Your task to perform on an android device: Turn off the flashlight Image 0: 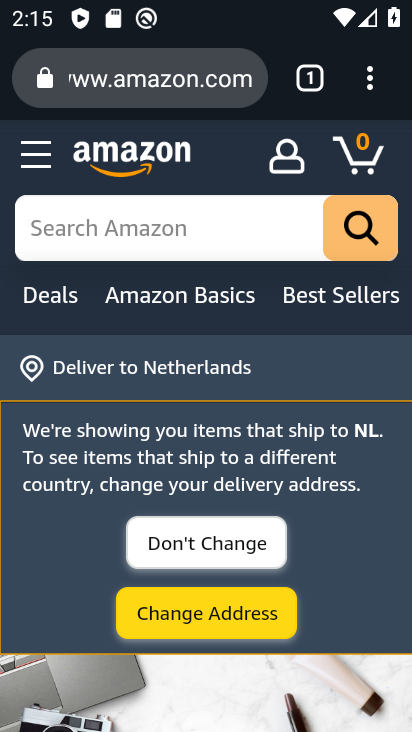
Step 0: press home button
Your task to perform on an android device: Turn off the flashlight Image 1: 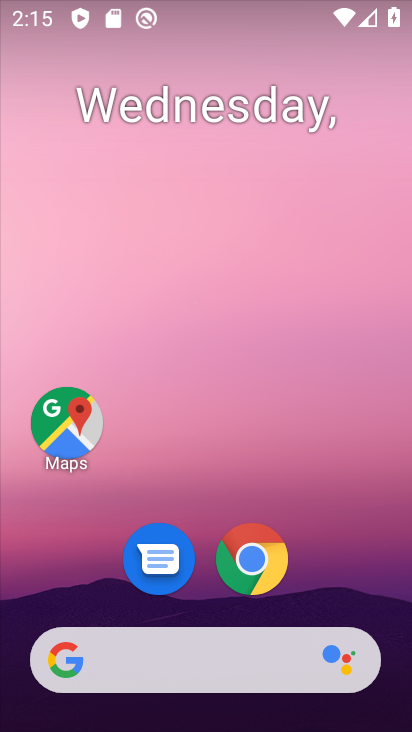
Step 1: drag from (257, 9) to (268, 339)
Your task to perform on an android device: Turn off the flashlight Image 2: 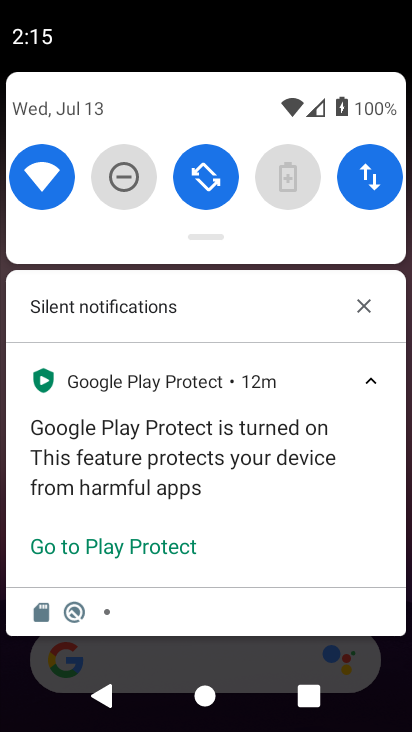
Step 2: drag from (239, 93) to (238, 394)
Your task to perform on an android device: Turn off the flashlight Image 3: 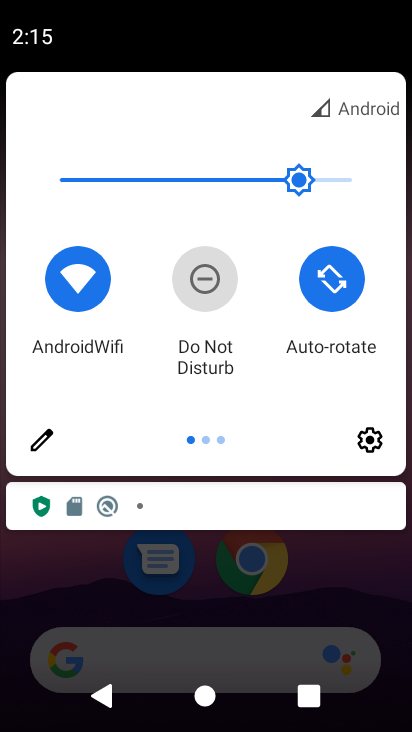
Step 3: click (39, 440)
Your task to perform on an android device: Turn off the flashlight Image 4: 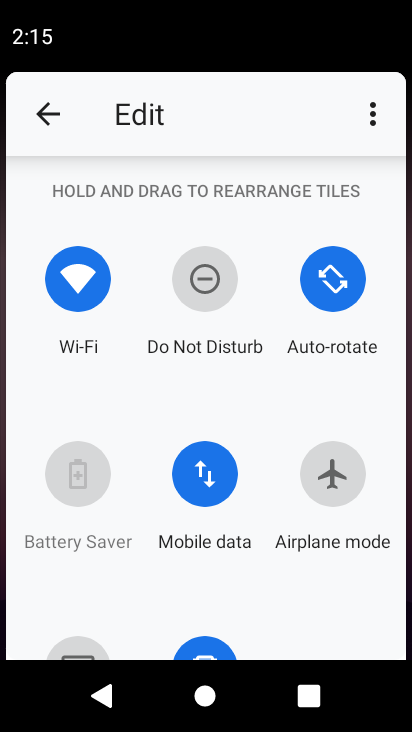
Step 4: task complete